Your task to perform on an android device: What's the weather going to be this weekend? Image 0: 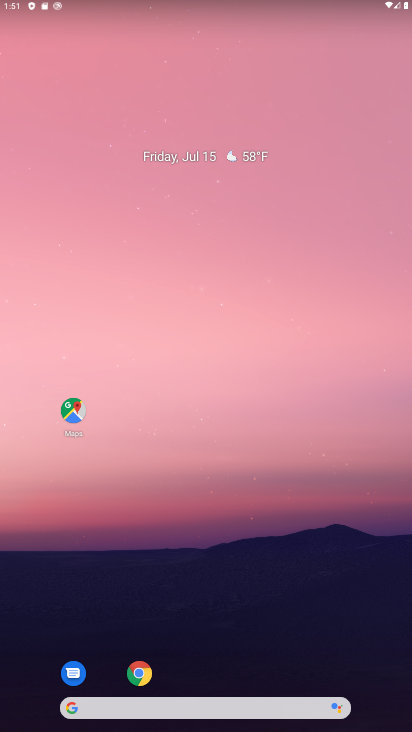
Step 0: click (308, 470)
Your task to perform on an android device: What's the weather going to be this weekend? Image 1: 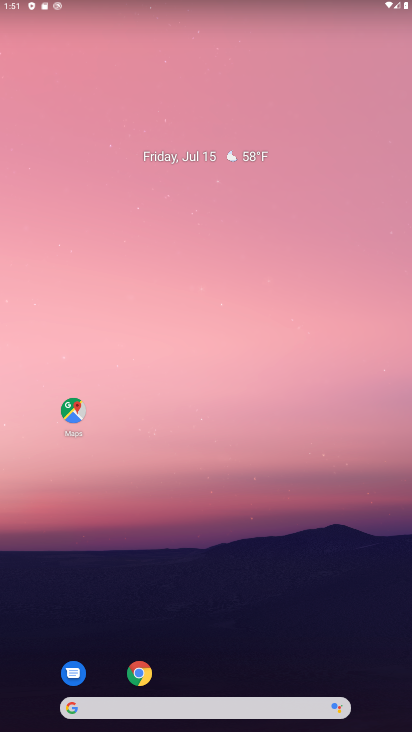
Step 1: drag from (381, 667) to (377, 583)
Your task to perform on an android device: What's the weather going to be this weekend? Image 2: 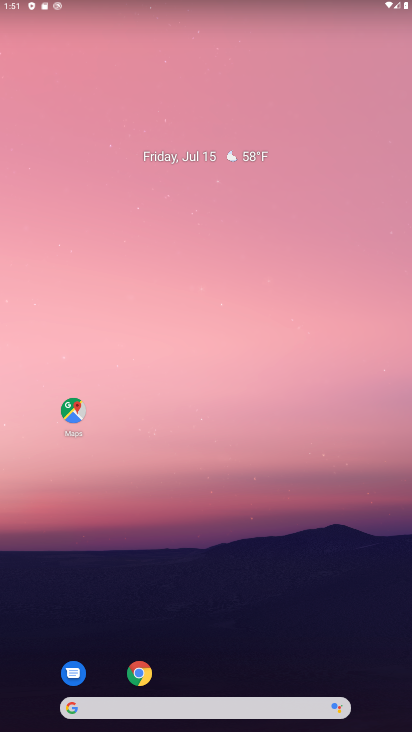
Step 2: click (253, 145)
Your task to perform on an android device: What's the weather going to be this weekend? Image 3: 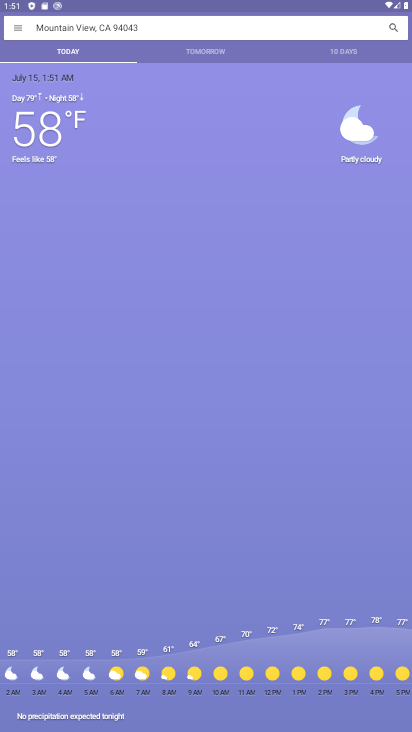
Step 3: click (349, 41)
Your task to perform on an android device: What's the weather going to be this weekend? Image 4: 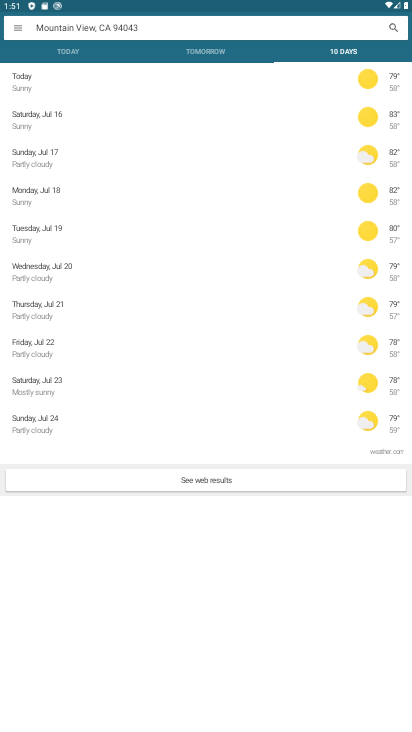
Step 4: task complete